Your task to perform on an android device: turn notification dots on Image 0: 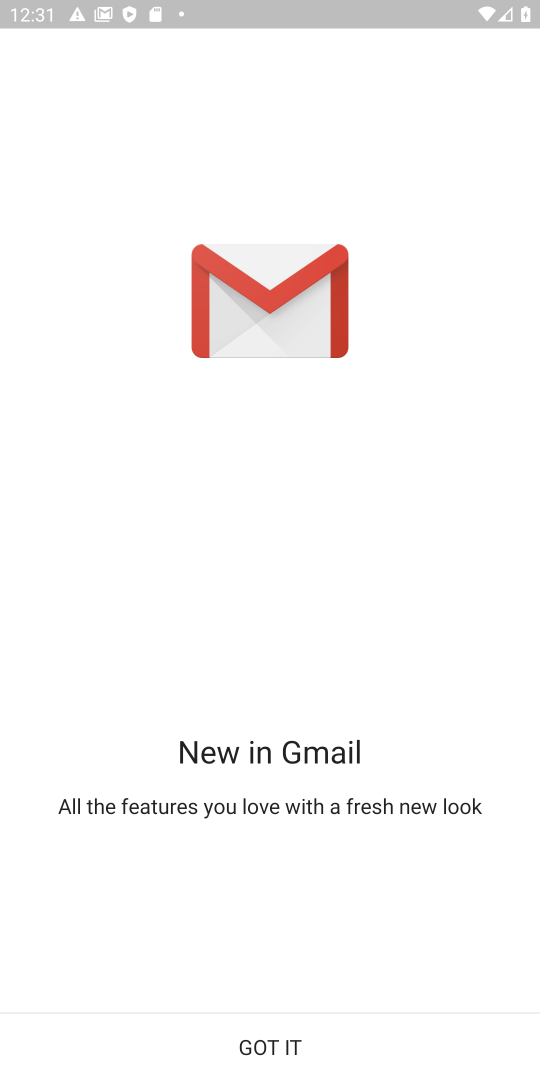
Step 0: press home button
Your task to perform on an android device: turn notification dots on Image 1: 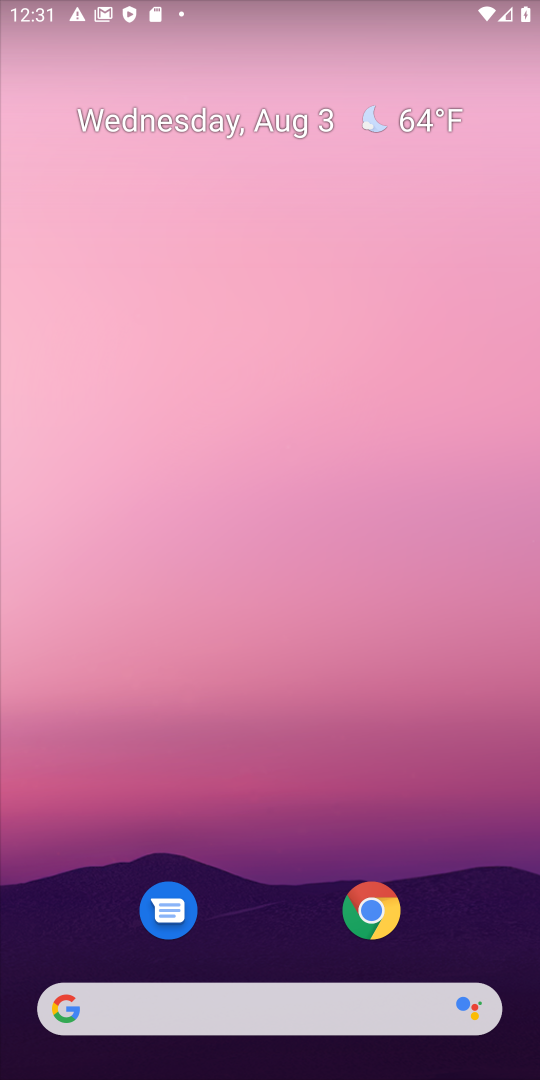
Step 1: drag from (355, 970) to (420, 209)
Your task to perform on an android device: turn notification dots on Image 2: 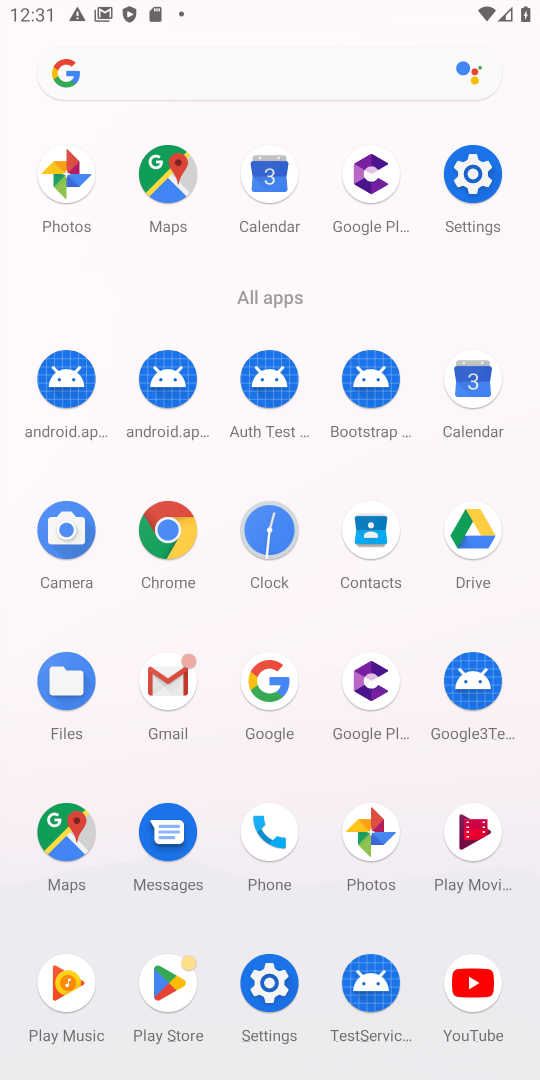
Step 2: click (470, 249)
Your task to perform on an android device: turn notification dots on Image 3: 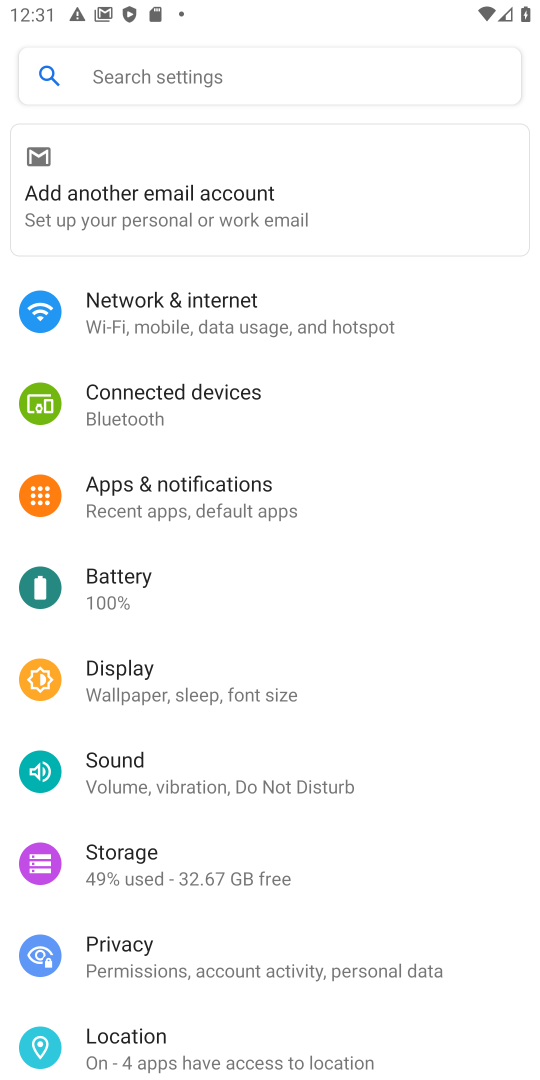
Step 3: click (270, 501)
Your task to perform on an android device: turn notification dots on Image 4: 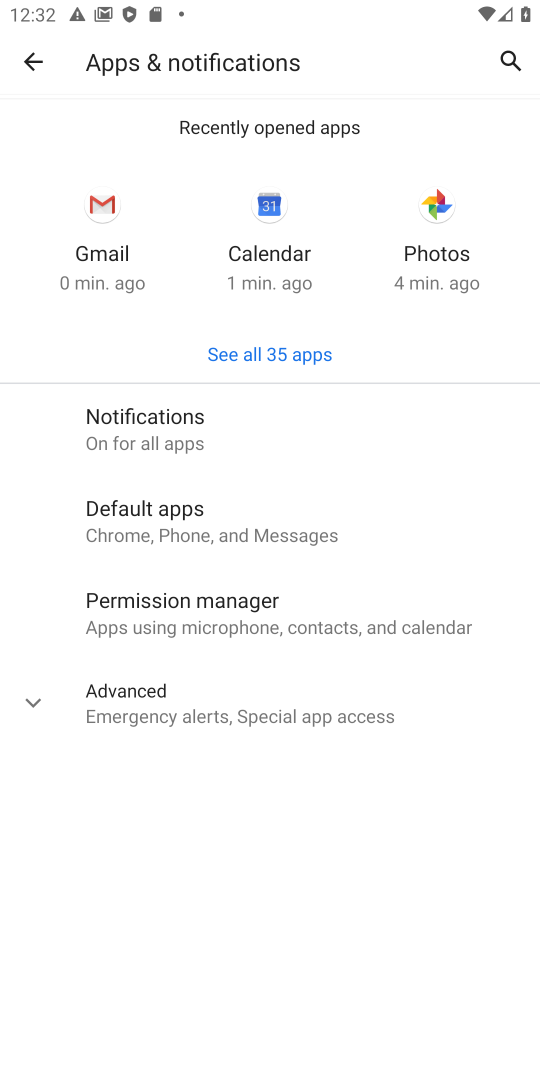
Step 4: click (171, 697)
Your task to perform on an android device: turn notification dots on Image 5: 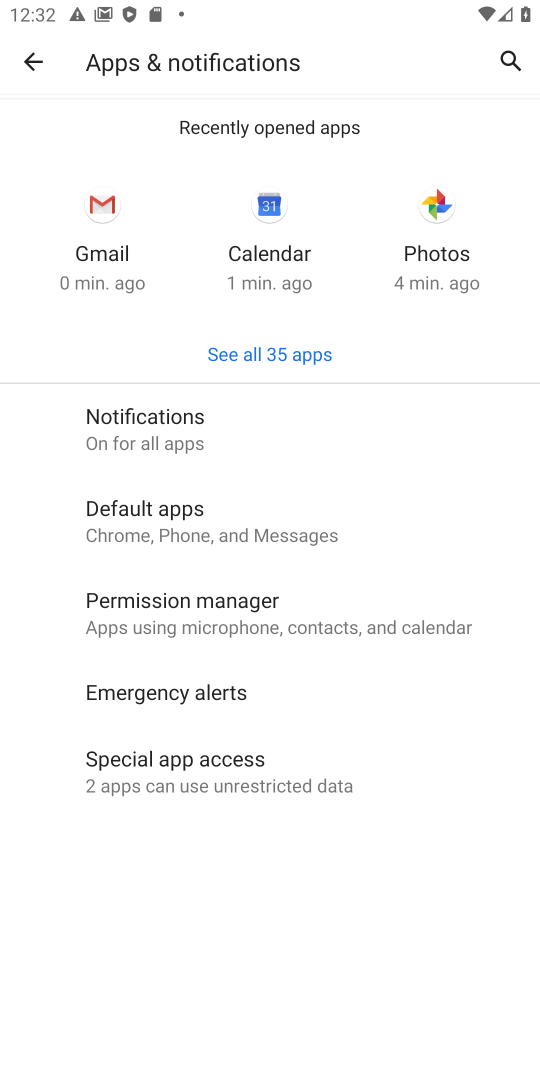
Step 5: click (221, 427)
Your task to perform on an android device: turn notification dots on Image 6: 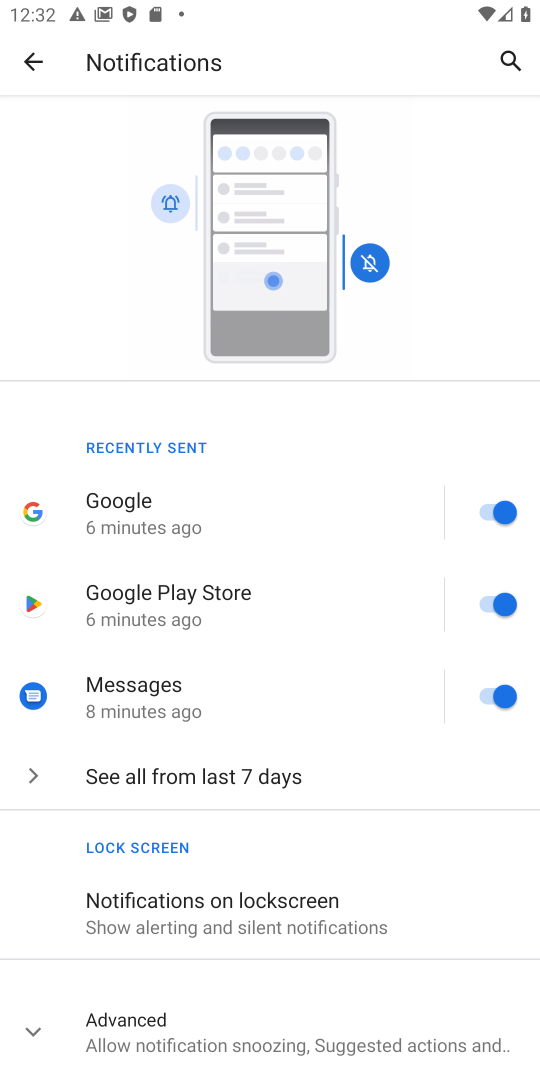
Step 6: drag from (440, 867) to (413, 134)
Your task to perform on an android device: turn notification dots on Image 7: 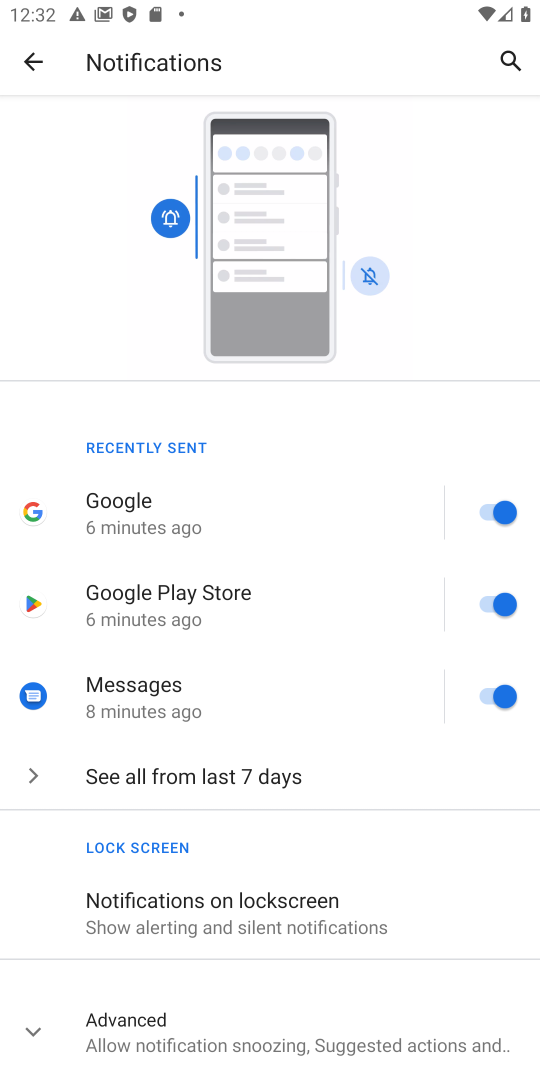
Step 7: click (306, 1035)
Your task to perform on an android device: turn notification dots on Image 8: 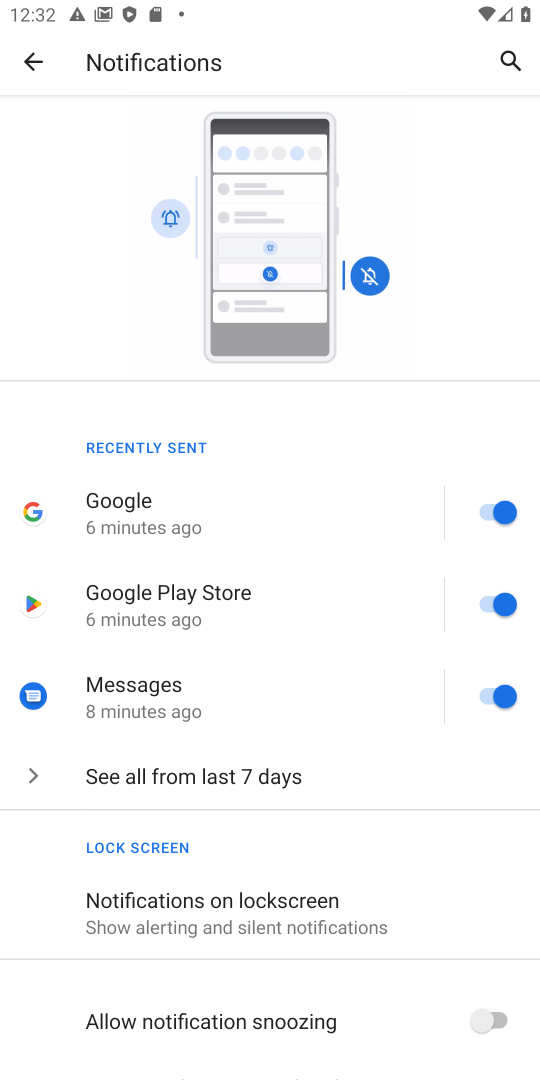
Step 8: task complete